Your task to perform on an android device: visit the assistant section in the google photos Image 0: 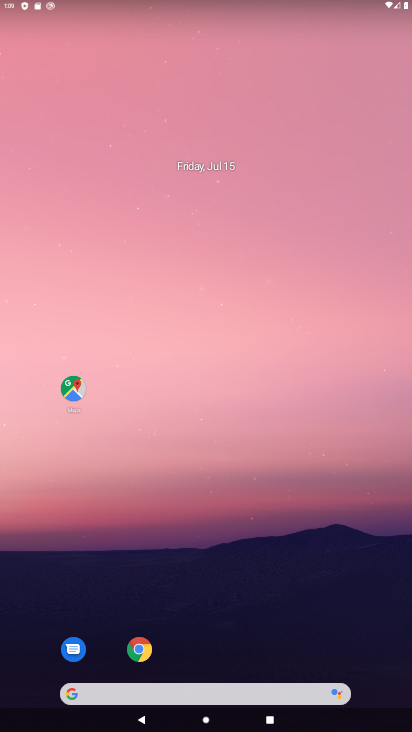
Step 0: drag from (276, 721) to (330, 5)
Your task to perform on an android device: visit the assistant section in the google photos Image 1: 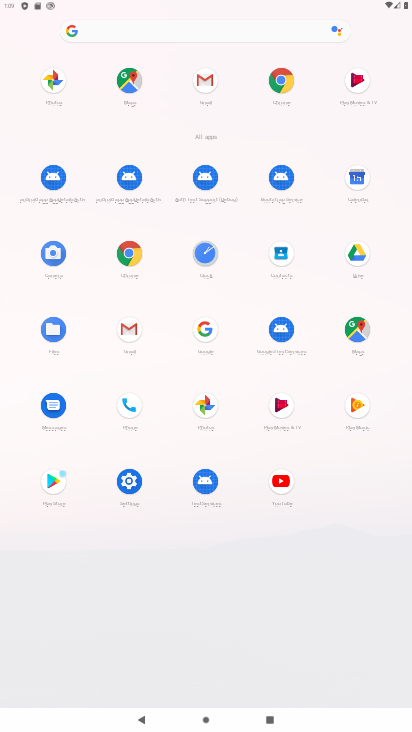
Step 1: click (193, 396)
Your task to perform on an android device: visit the assistant section in the google photos Image 2: 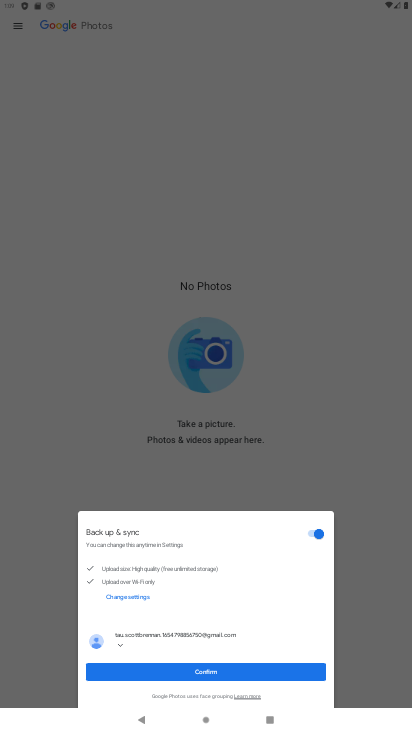
Step 2: click (234, 671)
Your task to perform on an android device: visit the assistant section in the google photos Image 3: 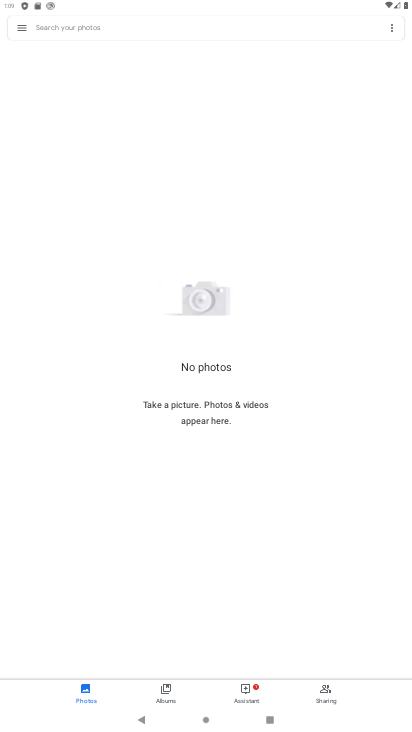
Step 3: click (241, 680)
Your task to perform on an android device: visit the assistant section in the google photos Image 4: 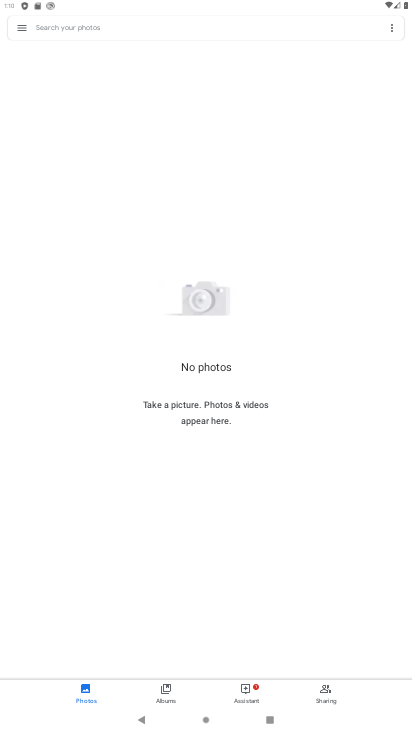
Step 4: click (254, 691)
Your task to perform on an android device: visit the assistant section in the google photos Image 5: 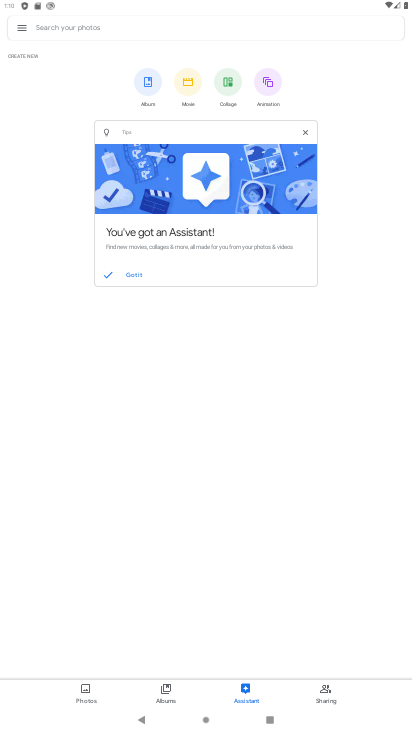
Step 5: task complete